Your task to perform on an android device: set the stopwatch Image 0: 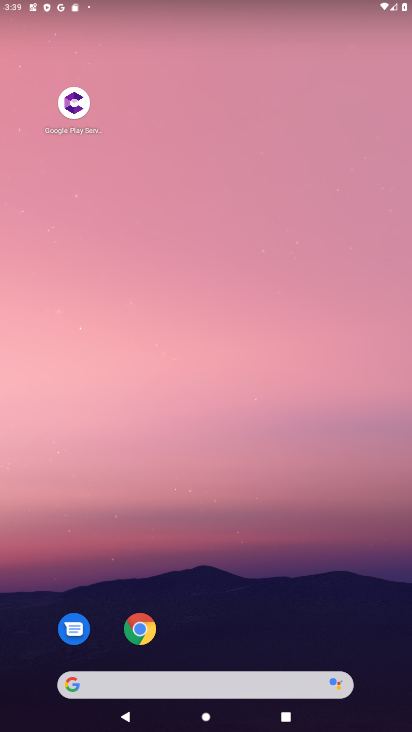
Step 0: drag from (174, 635) to (171, 250)
Your task to perform on an android device: set the stopwatch Image 1: 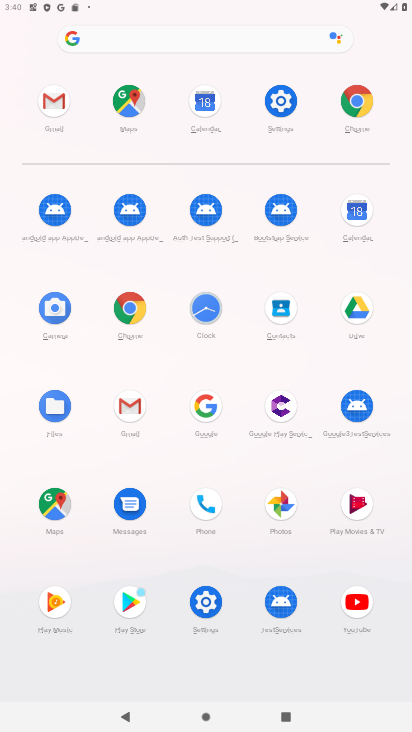
Step 1: click (207, 313)
Your task to perform on an android device: set the stopwatch Image 2: 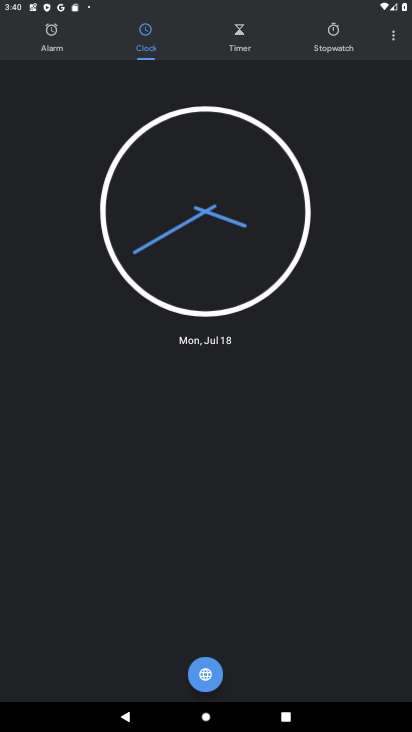
Step 2: click (345, 40)
Your task to perform on an android device: set the stopwatch Image 3: 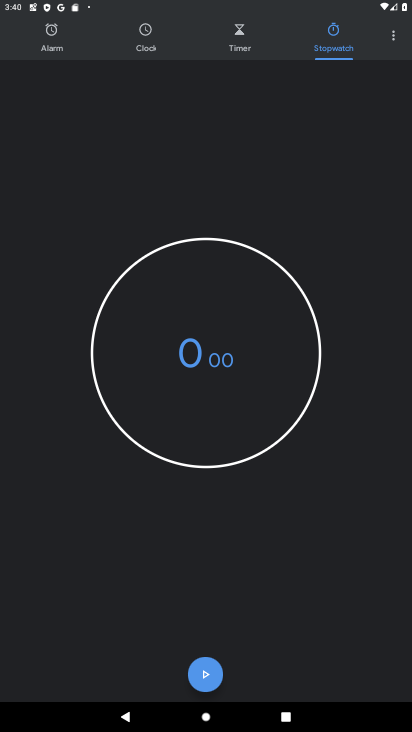
Step 3: task complete